Your task to perform on an android device: turn on priority inbox in the gmail app Image 0: 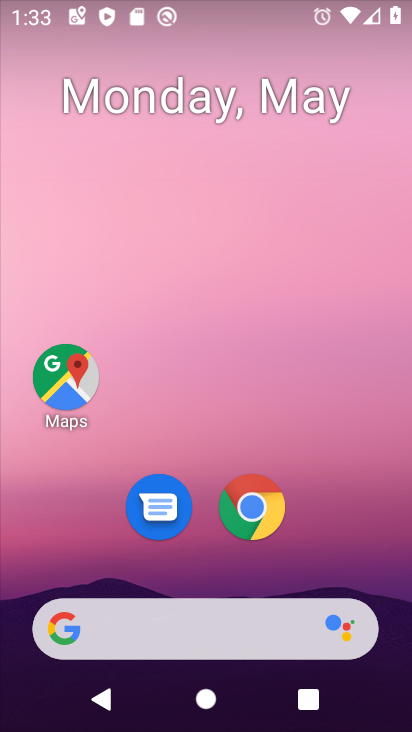
Step 0: drag from (221, 724) to (227, 27)
Your task to perform on an android device: turn on priority inbox in the gmail app Image 1: 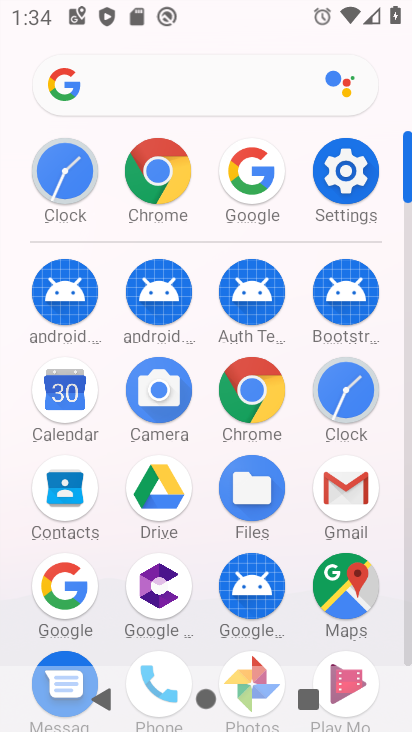
Step 1: click (339, 487)
Your task to perform on an android device: turn on priority inbox in the gmail app Image 2: 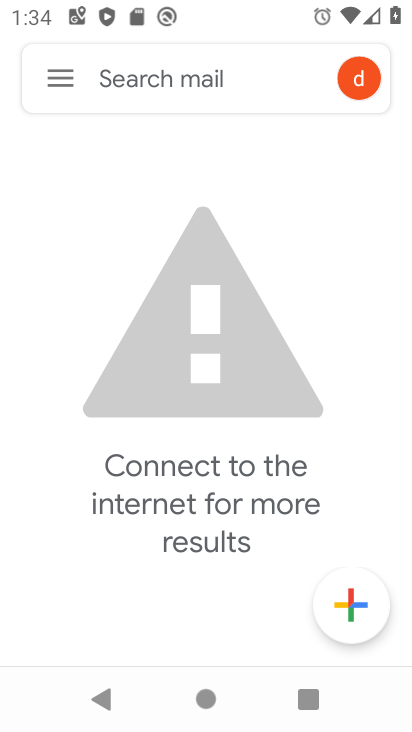
Step 2: click (57, 79)
Your task to perform on an android device: turn on priority inbox in the gmail app Image 3: 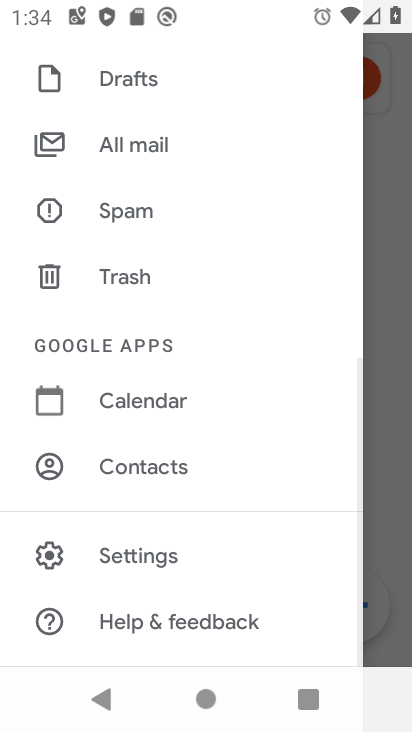
Step 3: click (142, 554)
Your task to perform on an android device: turn on priority inbox in the gmail app Image 4: 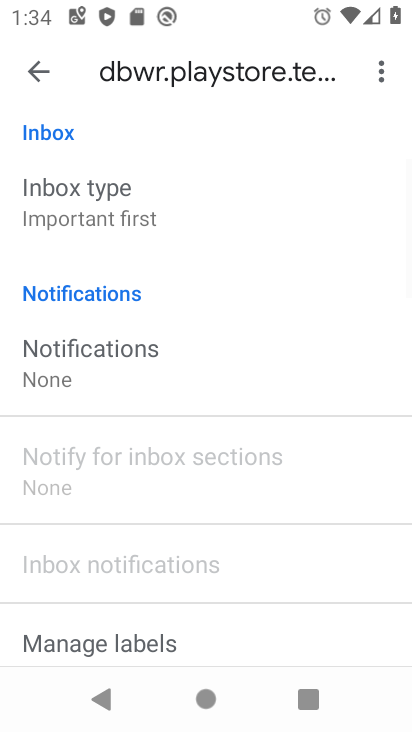
Step 4: drag from (173, 207) to (166, 489)
Your task to perform on an android device: turn on priority inbox in the gmail app Image 5: 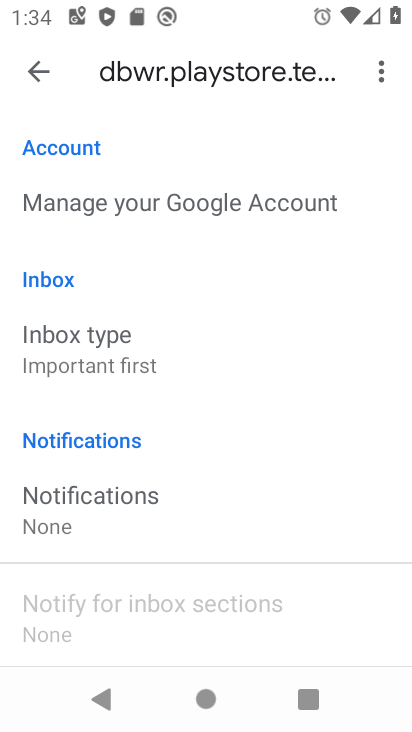
Step 5: click (91, 346)
Your task to perform on an android device: turn on priority inbox in the gmail app Image 6: 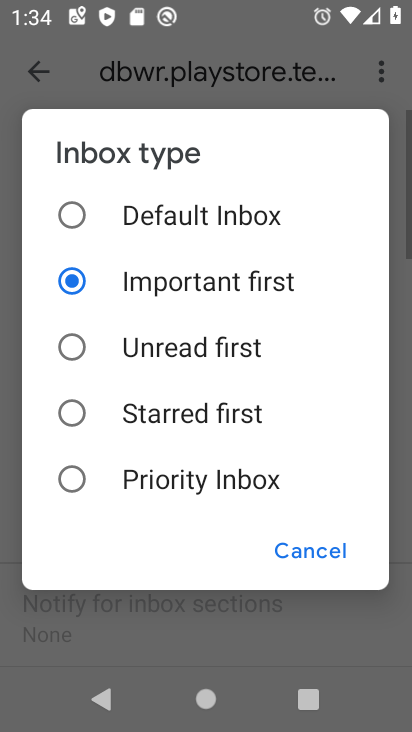
Step 6: click (71, 480)
Your task to perform on an android device: turn on priority inbox in the gmail app Image 7: 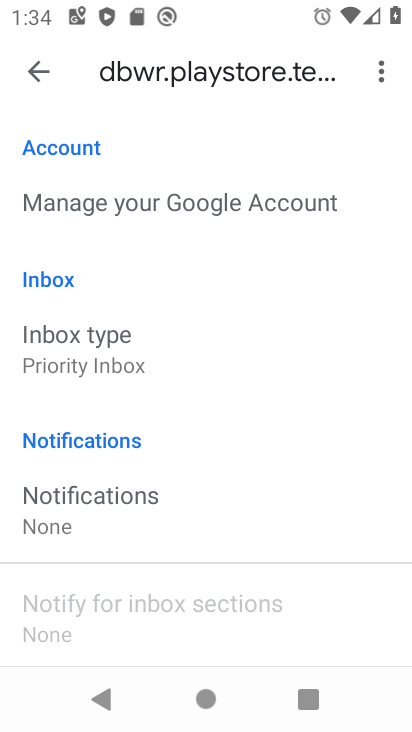
Step 7: task complete